Your task to perform on an android device: turn notification dots on Image 0: 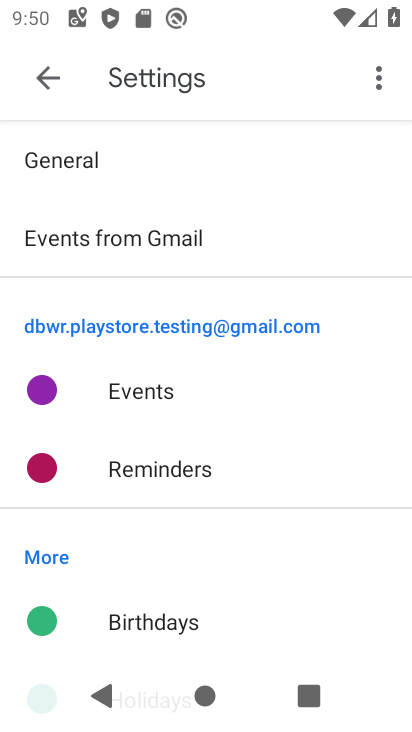
Step 0: press home button
Your task to perform on an android device: turn notification dots on Image 1: 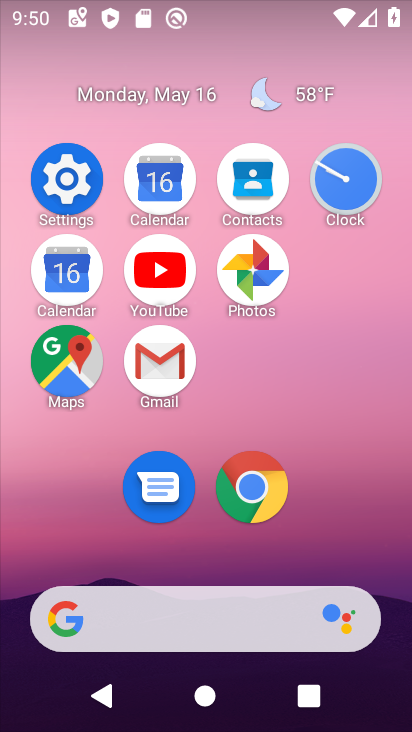
Step 1: click (70, 185)
Your task to perform on an android device: turn notification dots on Image 2: 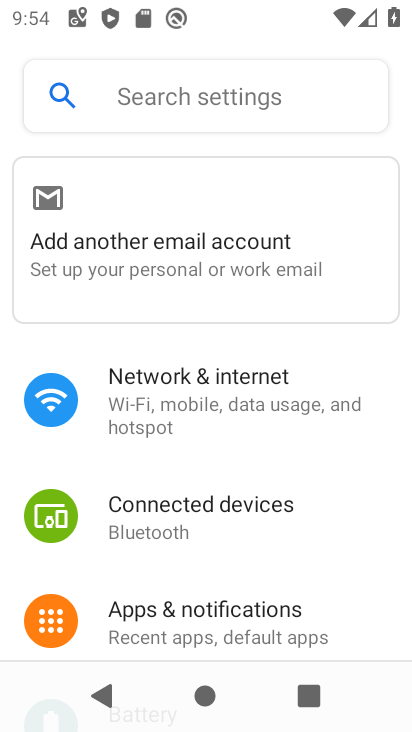
Step 2: click (219, 609)
Your task to perform on an android device: turn notification dots on Image 3: 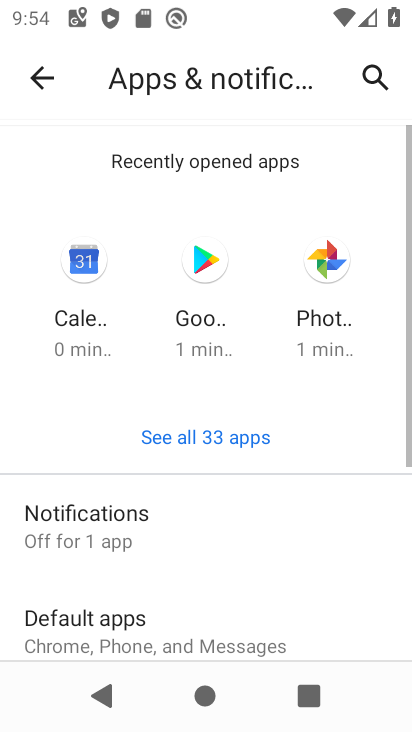
Step 3: drag from (218, 605) to (294, 157)
Your task to perform on an android device: turn notification dots on Image 4: 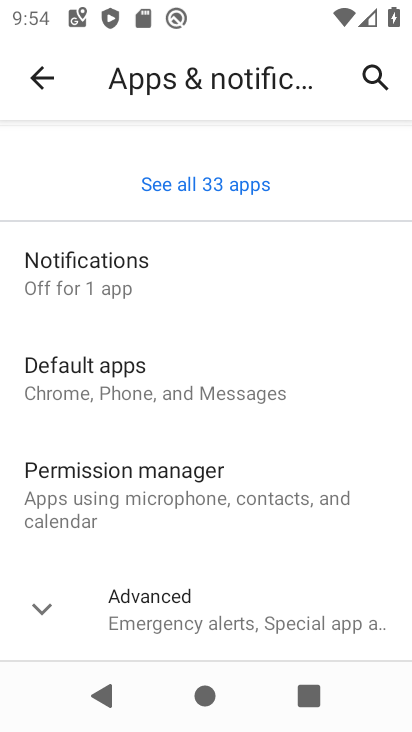
Step 4: click (177, 254)
Your task to perform on an android device: turn notification dots on Image 5: 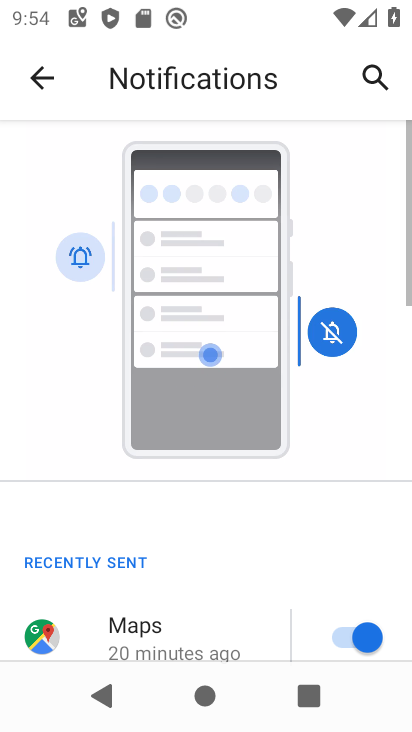
Step 5: drag from (178, 538) to (252, 56)
Your task to perform on an android device: turn notification dots on Image 6: 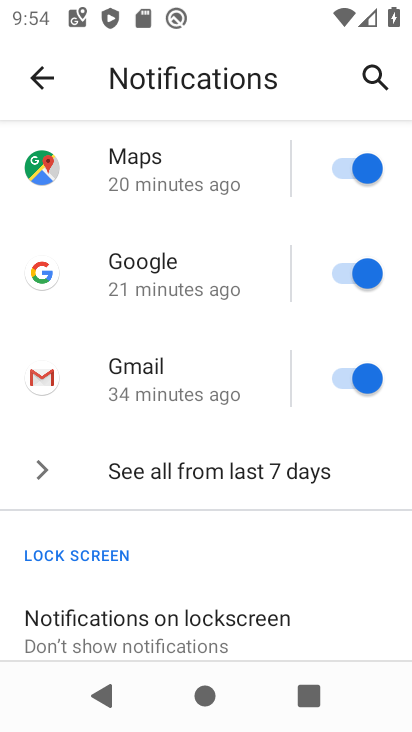
Step 6: drag from (222, 544) to (276, 89)
Your task to perform on an android device: turn notification dots on Image 7: 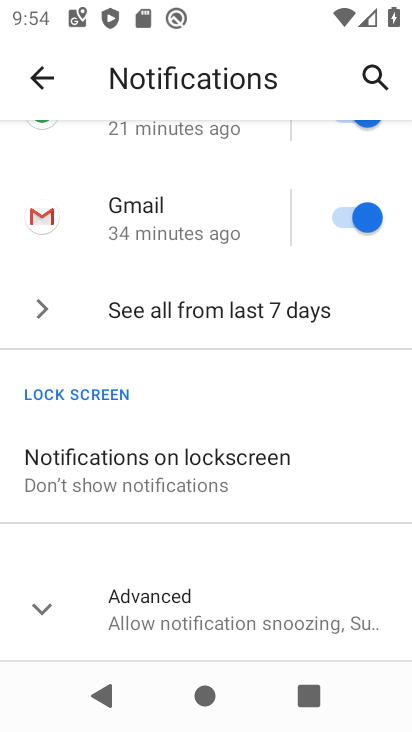
Step 7: click (212, 621)
Your task to perform on an android device: turn notification dots on Image 8: 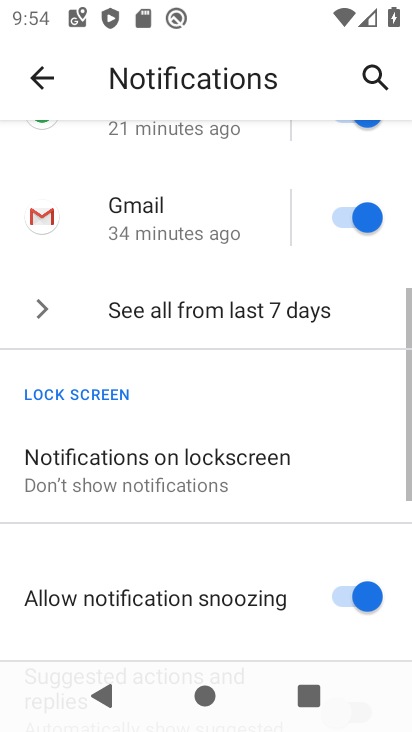
Step 8: drag from (212, 621) to (268, 123)
Your task to perform on an android device: turn notification dots on Image 9: 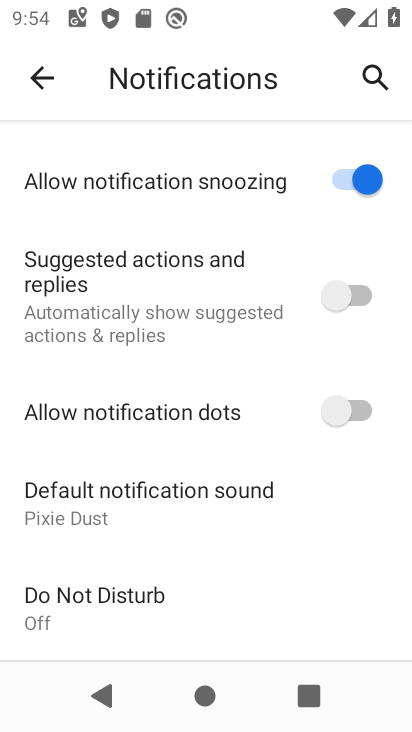
Step 9: click (368, 413)
Your task to perform on an android device: turn notification dots on Image 10: 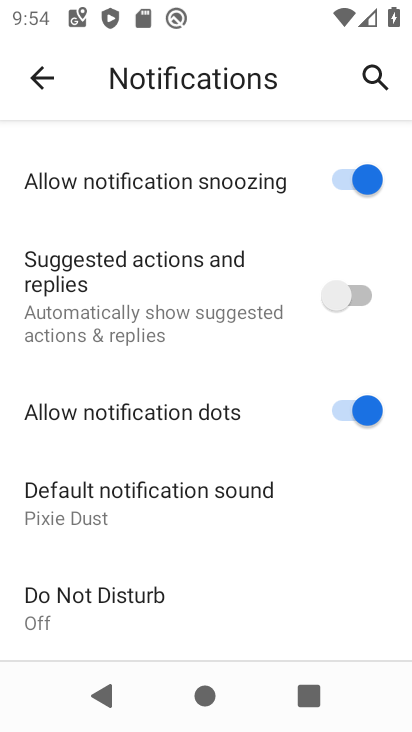
Step 10: task complete